Your task to perform on an android device: Open CNN.com Image 0: 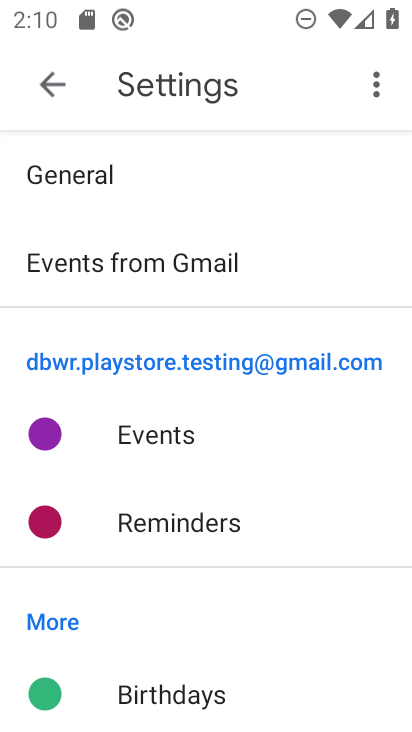
Step 0: press home button
Your task to perform on an android device: Open CNN.com Image 1: 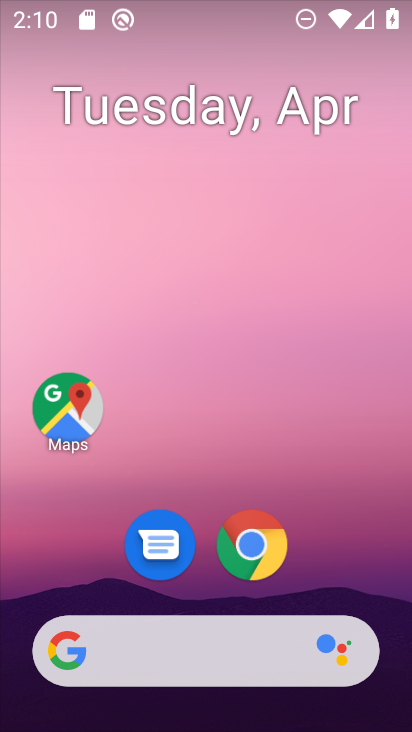
Step 1: click (268, 562)
Your task to perform on an android device: Open CNN.com Image 2: 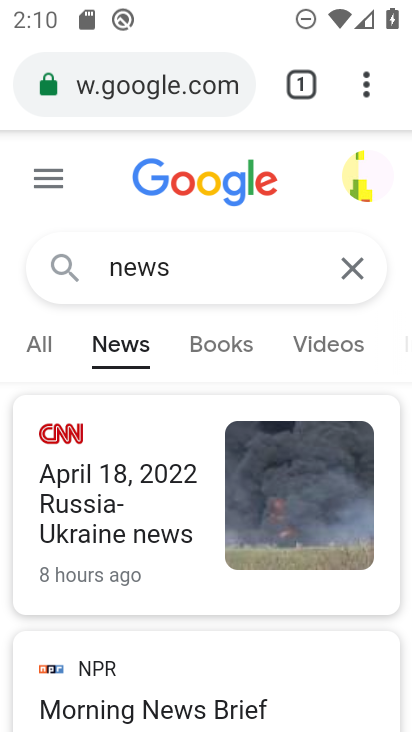
Step 2: click (213, 73)
Your task to perform on an android device: Open CNN.com Image 3: 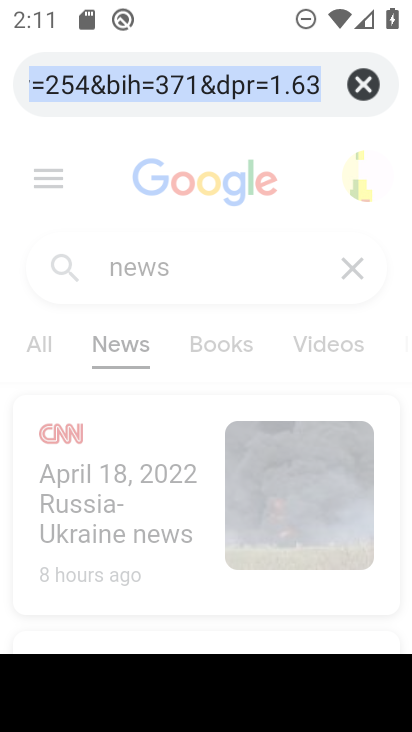
Step 3: type "cnn"
Your task to perform on an android device: Open CNN.com Image 4: 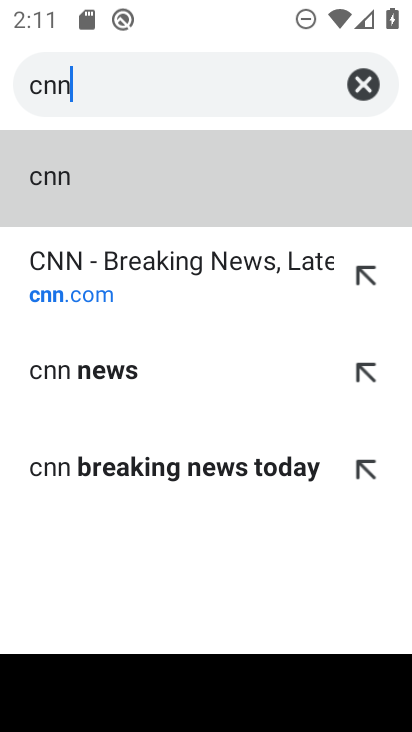
Step 4: click (215, 278)
Your task to perform on an android device: Open CNN.com Image 5: 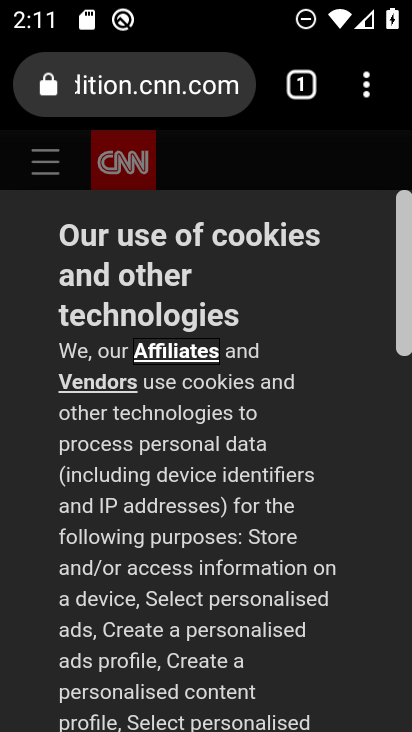
Step 5: task complete